Your task to perform on an android device: Open eBay Image 0: 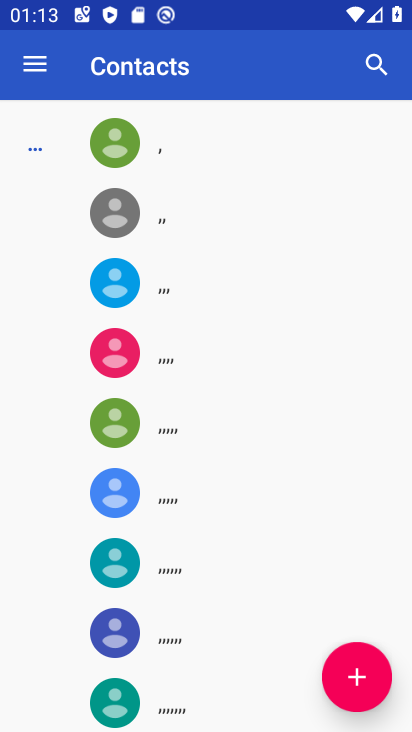
Step 0: press home button
Your task to perform on an android device: Open eBay Image 1: 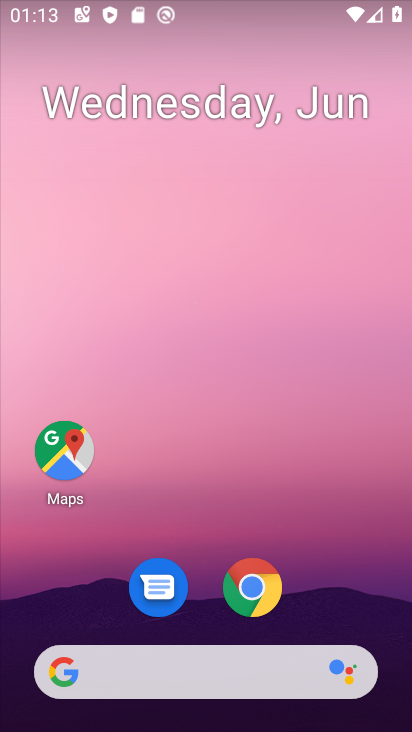
Step 1: click (251, 587)
Your task to perform on an android device: Open eBay Image 2: 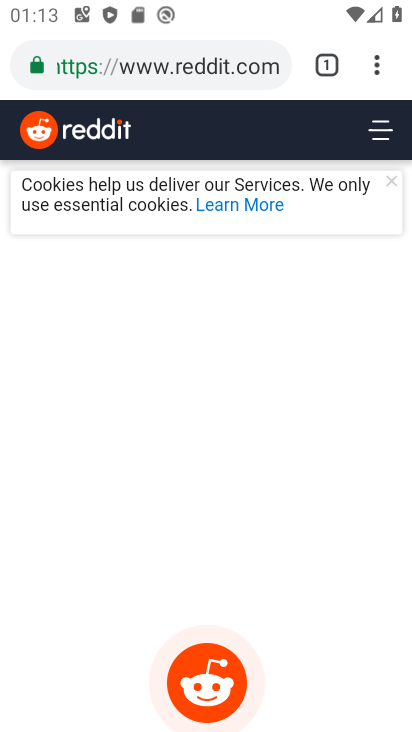
Step 2: click (195, 60)
Your task to perform on an android device: Open eBay Image 3: 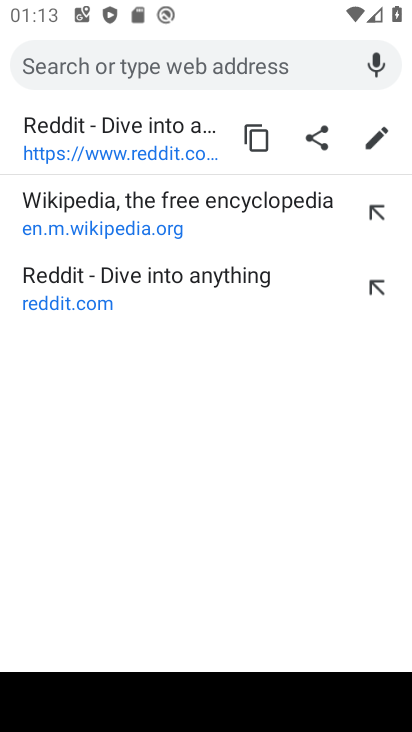
Step 3: type "ebay"
Your task to perform on an android device: Open eBay Image 4: 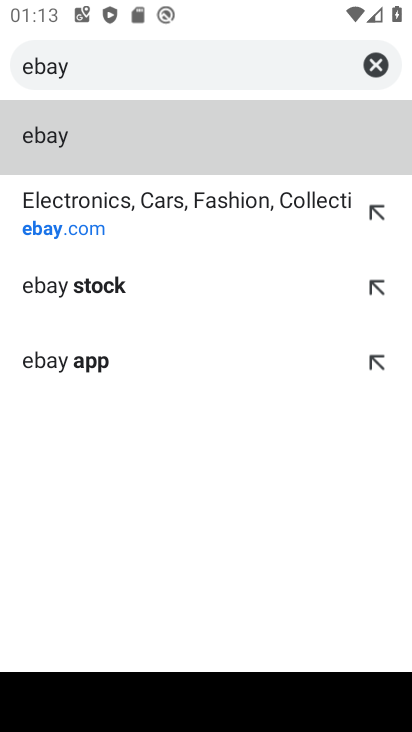
Step 4: click (30, 224)
Your task to perform on an android device: Open eBay Image 5: 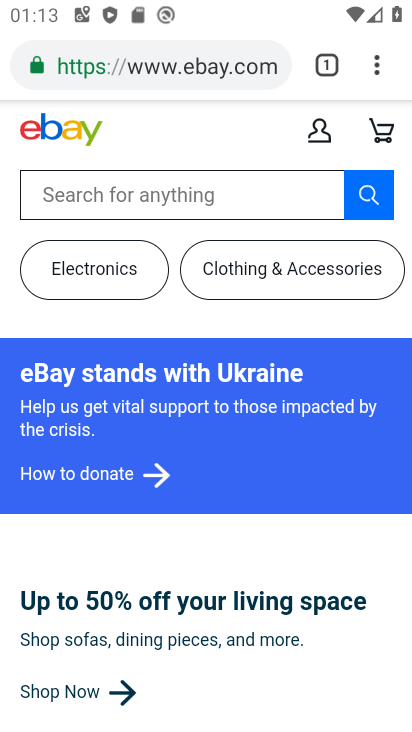
Step 5: task complete